Your task to perform on an android device: Open the calendar and show me this week's events? Image 0: 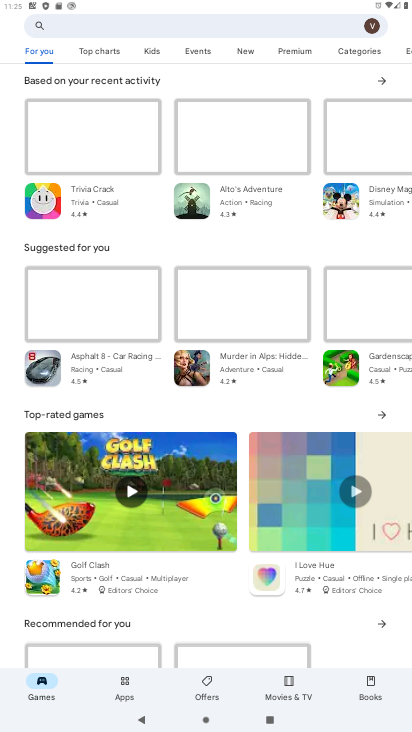
Step 0: press home button
Your task to perform on an android device: Open the calendar and show me this week's events? Image 1: 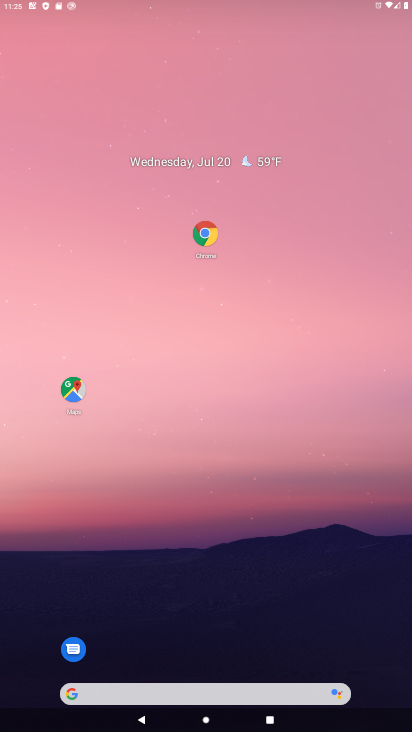
Step 1: drag from (198, 666) to (243, 97)
Your task to perform on an android device: Open the calendar and show me this week's events? Image 2: 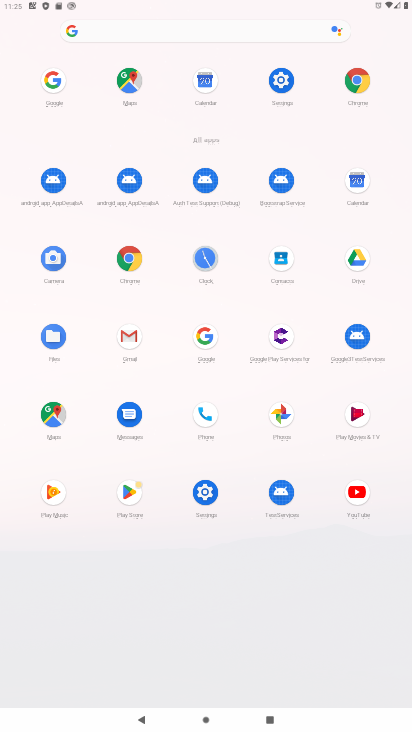
Step 2: click (354, 180)
Your task to perform on an android device: Open the calendar and show me this week's events? Image 3: 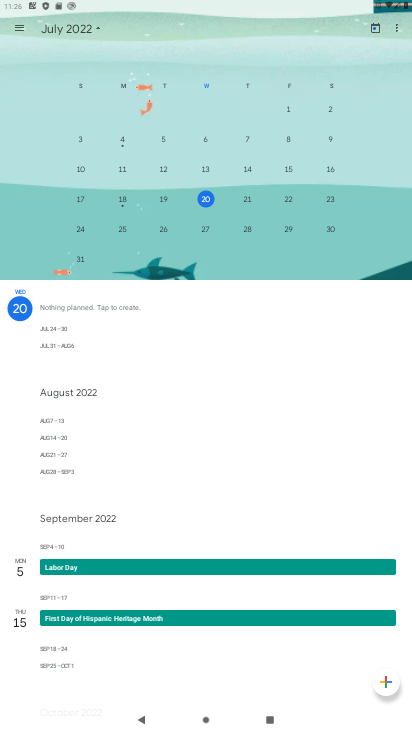
Step 3: click (288, 199)
Your task to perform on an android device: Open the calendar and show me this week's events? Image 4: 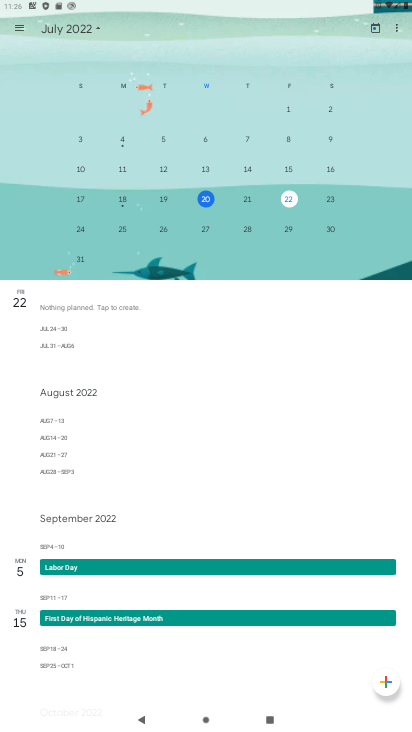
Step 4: task complete